Your task to perform on an android device: Empty the shopping cart on bestbuy. Image 0: 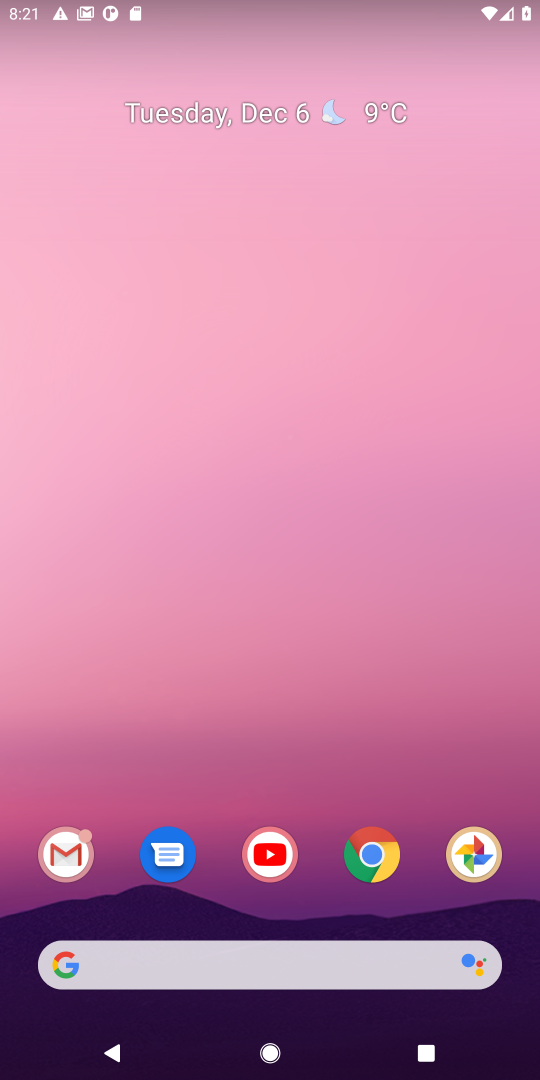
Step 0: click (380, 862)
Your task to perform on an android device: Empty the shopping cart on bestbuy. Image 1: 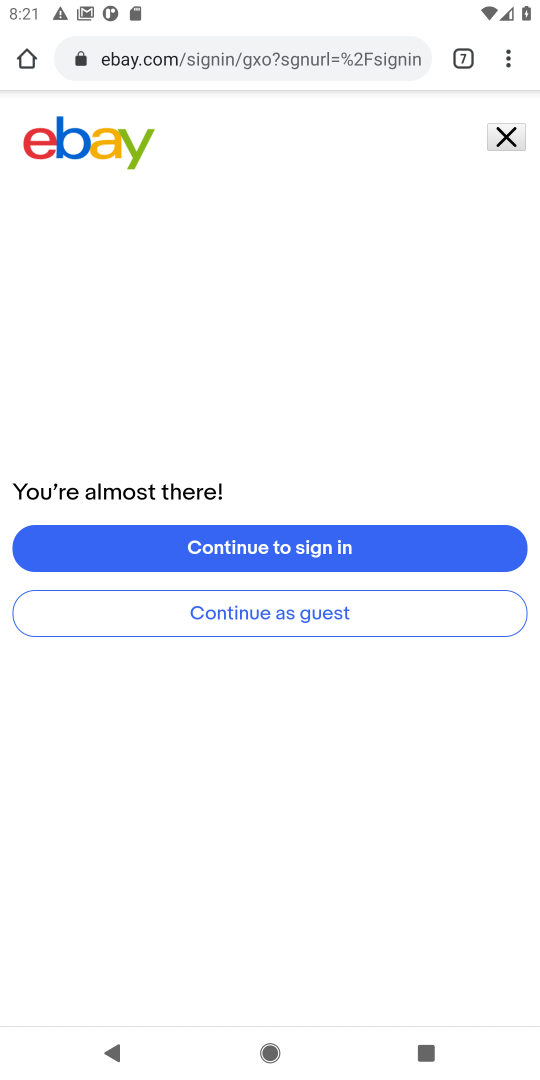
Step 1: click (455, 49)
Your task to perform on an android device: Empty the shopping cart on bestbuy. Image 2: 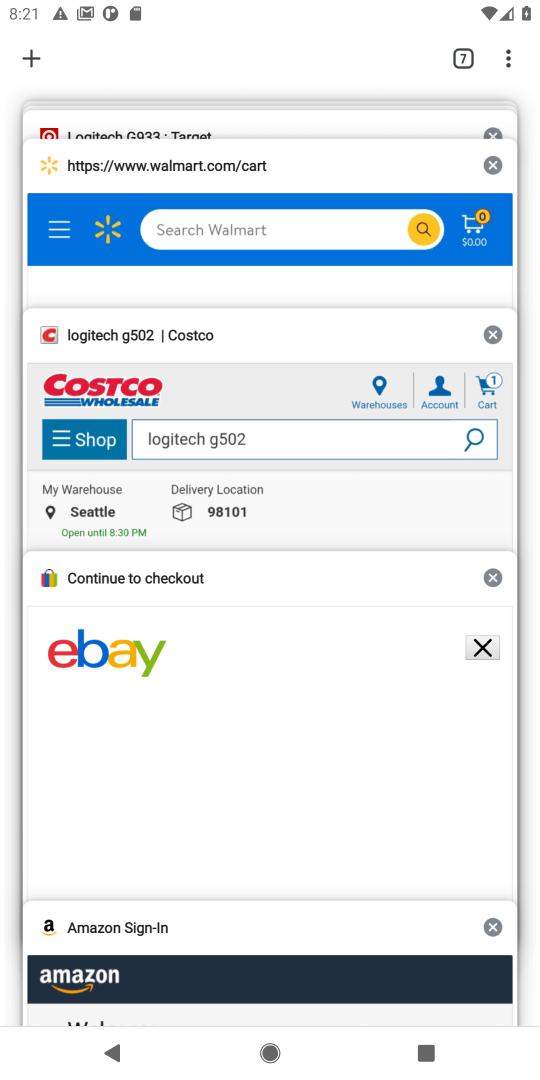
Step 2: drag from (187, 157) to (323, 555)
Your task to perform on an android device: Empty the shopping cart on bestbuy. Image 3: 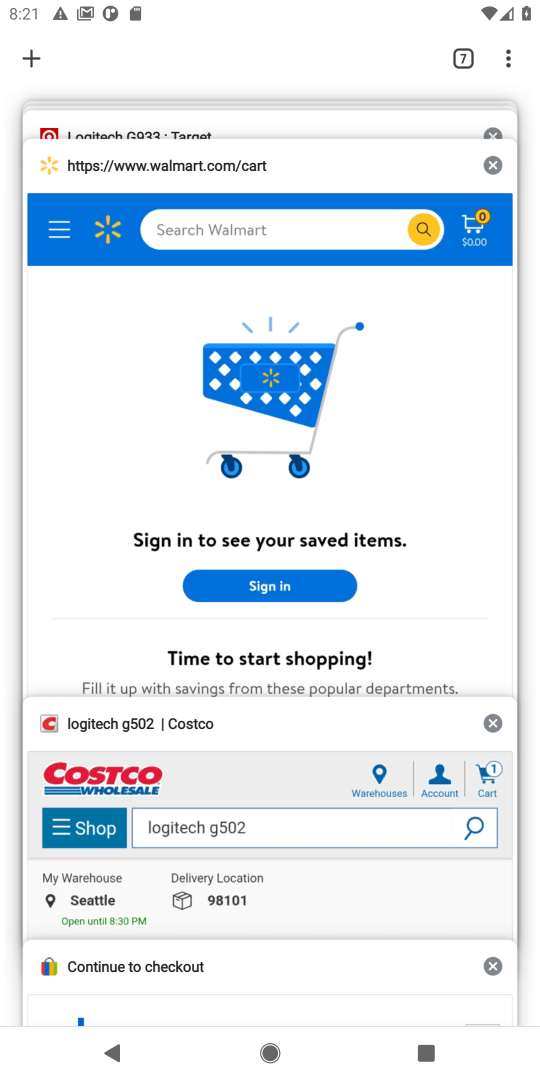
Step 3: drag from (260, 116) to (283, 685)
Your task to perform on an android device: Empty the shopping cart on bestbuy. Image 4: 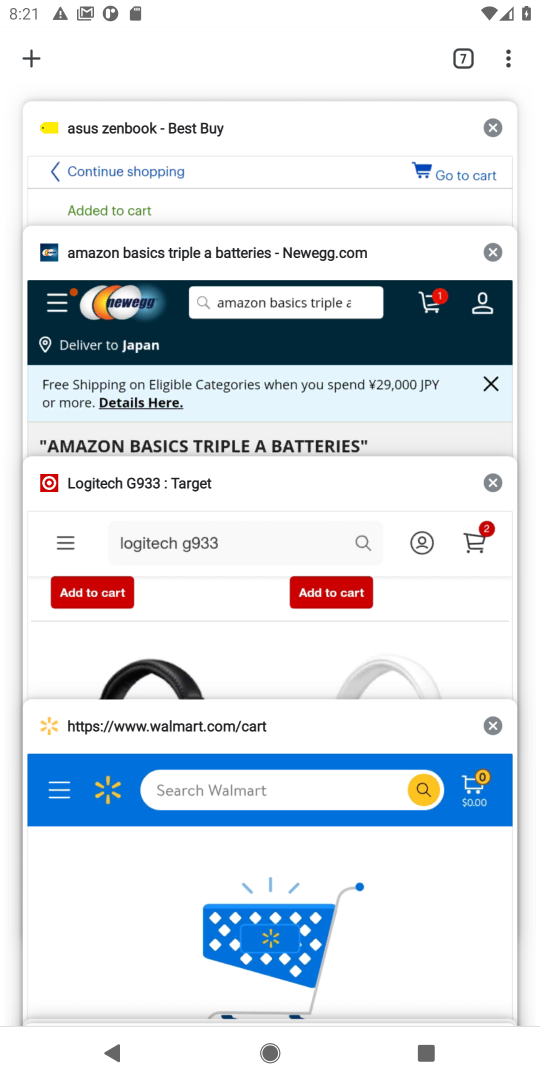
Step 4: click (210, 141)
Your task to perform on an android device: Empty the shopping cart on bestbuy. Image 5: 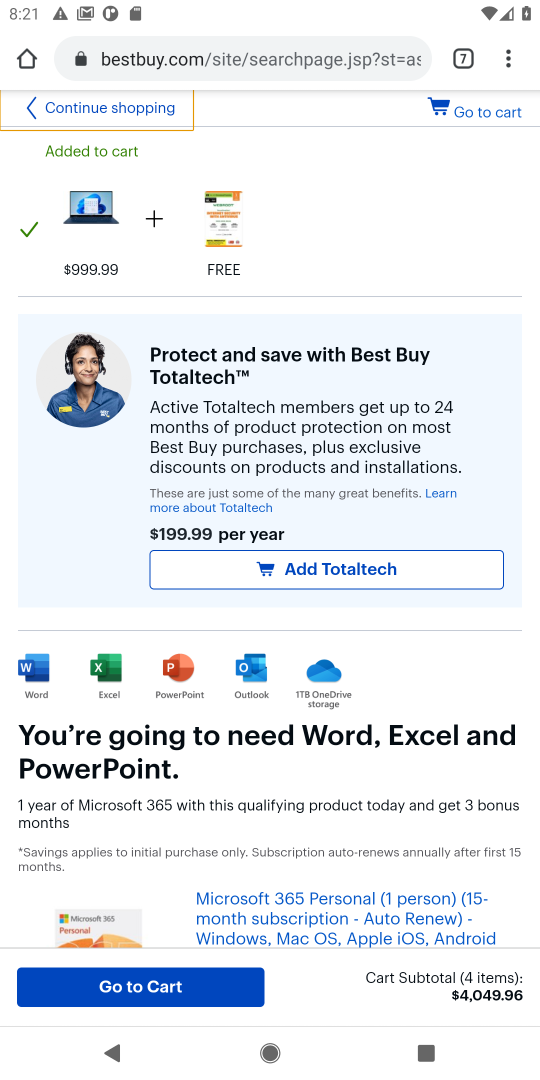
Step 5: click (481, 107)
Your task to perform on an android device: Empty the shopping cart on bestbuy. Image 6: 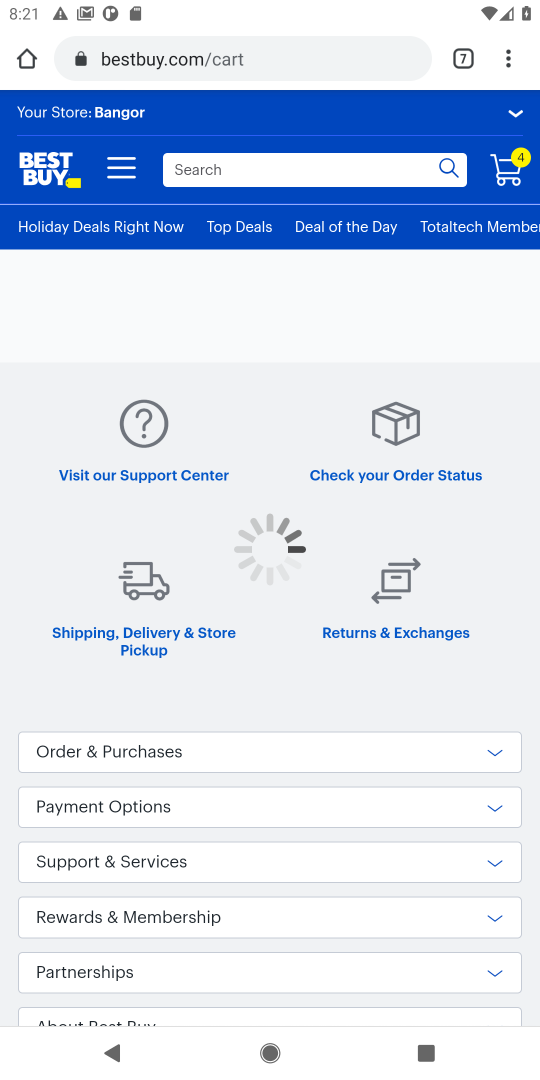
Step 6: click (512, 166)
Your task to perform on an android device: Empty the shopping cart on bestbuy. Image 7: 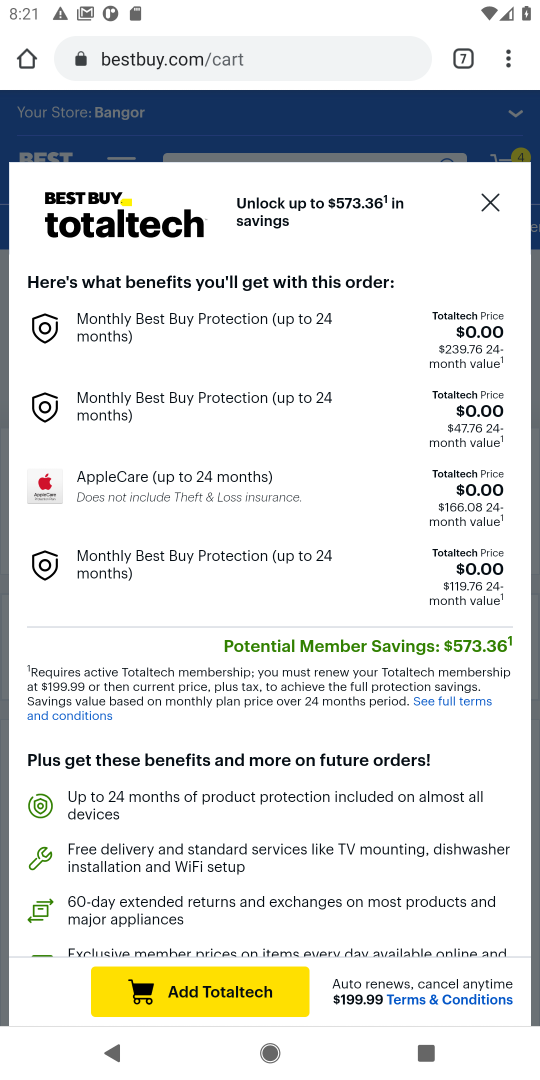
Step 7: click (499, 203)
Your task to perform on an android device: Empty the shopping cart on bestbuy. Image 8: 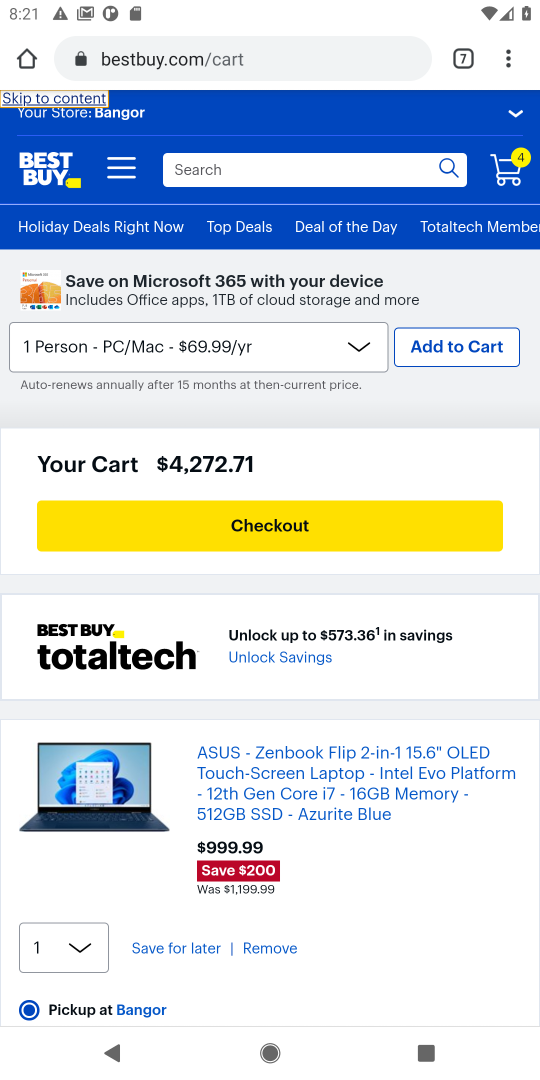
Step 8: click (255, 947)
Your task to perform on an android device: Empty the shopping cart on bestbuy. Image 9: 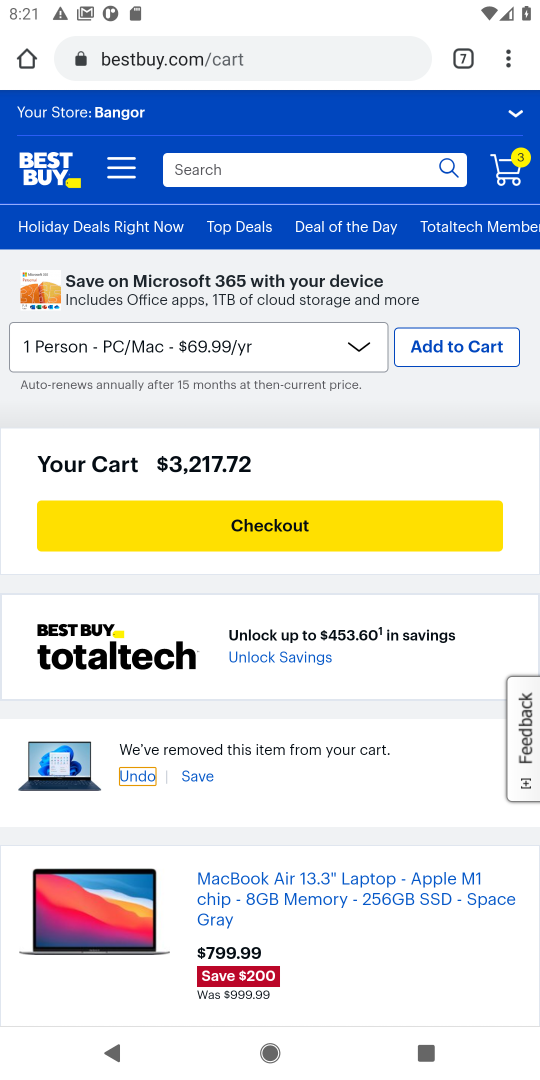
Step 9: drag from (334, 911) to (341, 343)
Your task to perform on an android device: Empty the shopping cart on bestbuy. Image 10: 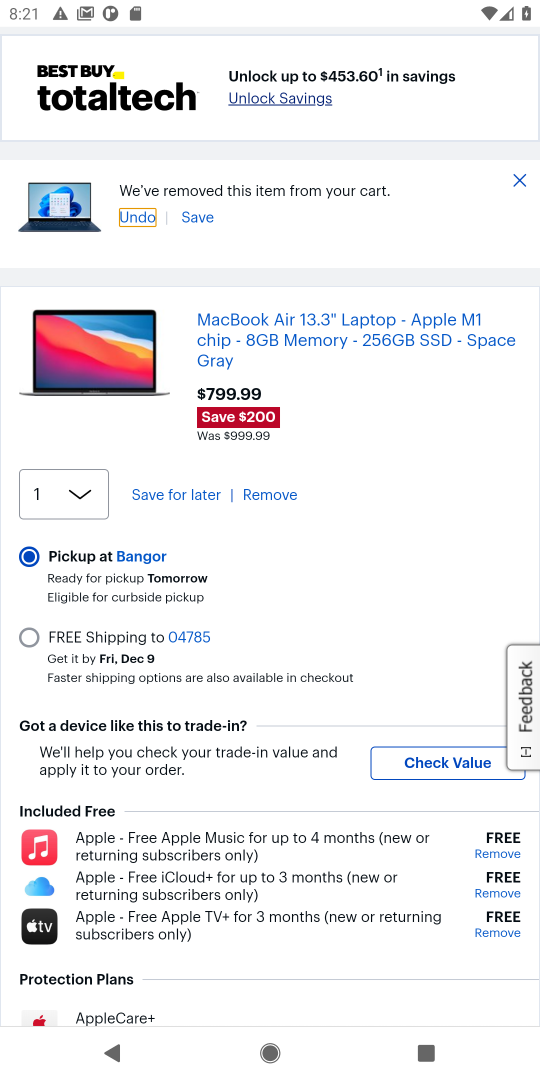
Step 10: click (271, 492)
Your task to perform on an android device: Empty the shopping cart on bestbuy. Image 11: 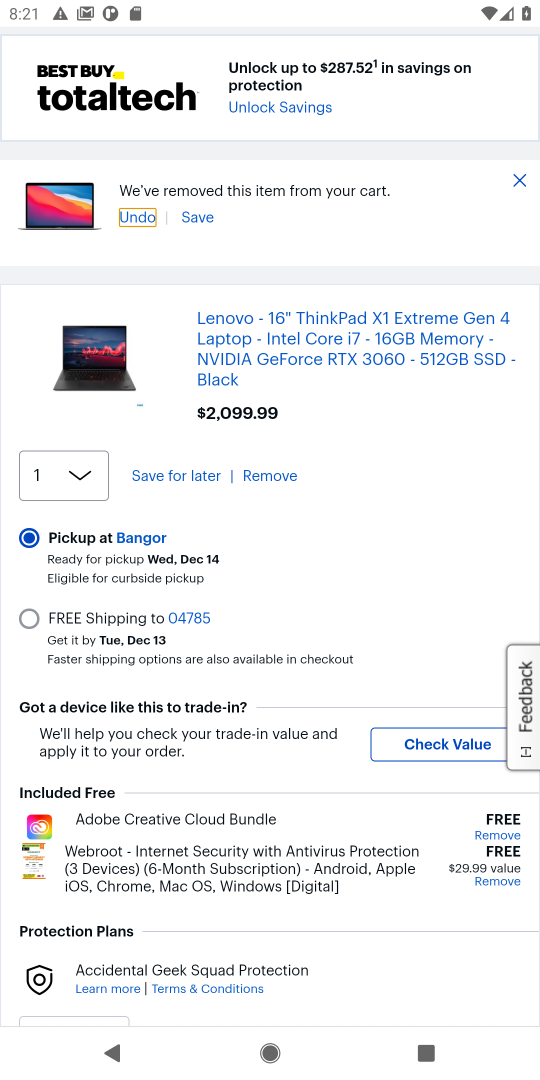
Step 11: click (281, 474)
Your task to perform on an android device: Empty the shopping cart on bestbuy. Image 12: 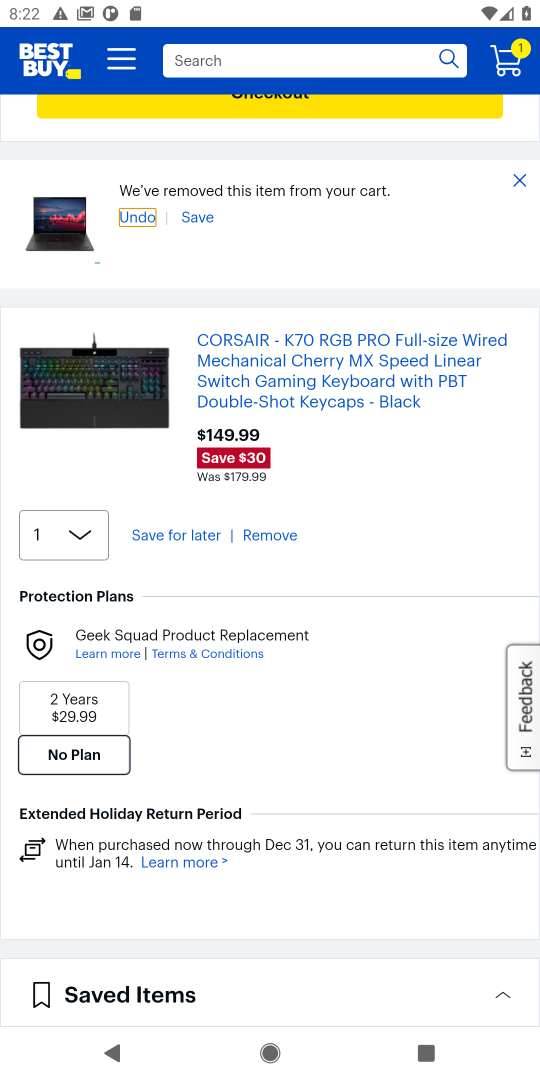
Step 12: click (271, 539)
Your task to perform on an android device: Empty the shopping cart on bestbuy. Image 13: 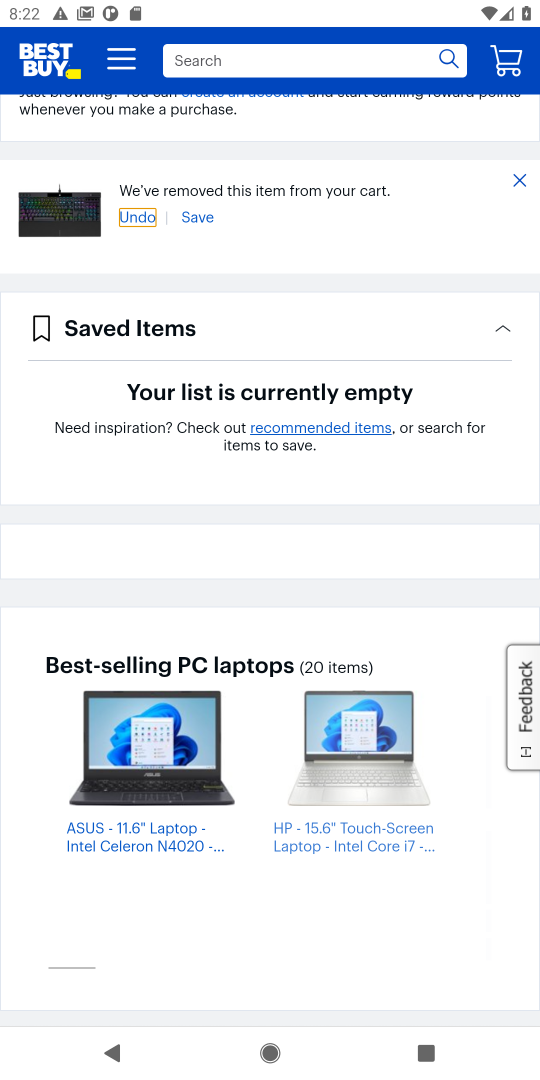
Step 13: task complete